Your task to perform on an android device: change your default location settings in chrome Image 0: 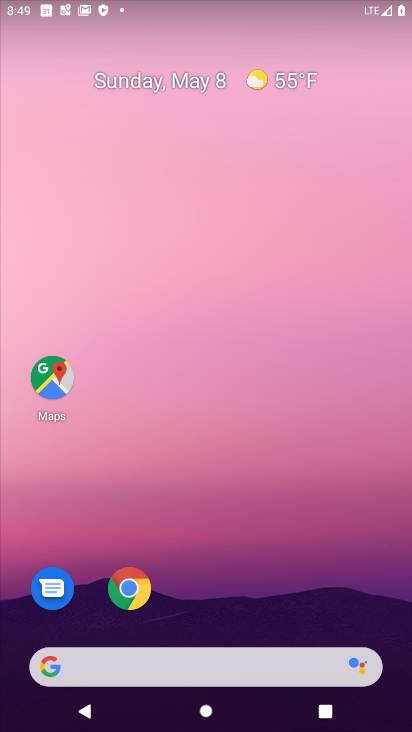
Step 0: drag from (335, 607) to (249, 24)
Your task to perform on an android device: change your default location settings in chrome Image 1: 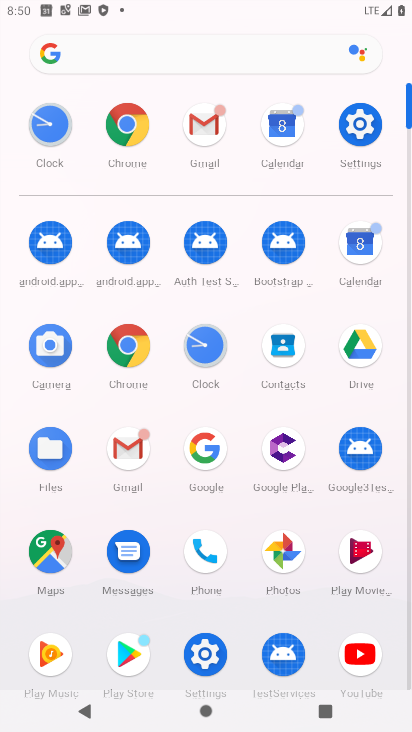
Step 1: click (134, 125)
Your task to perform on an android device: change your default location settings in chrome Image 2: 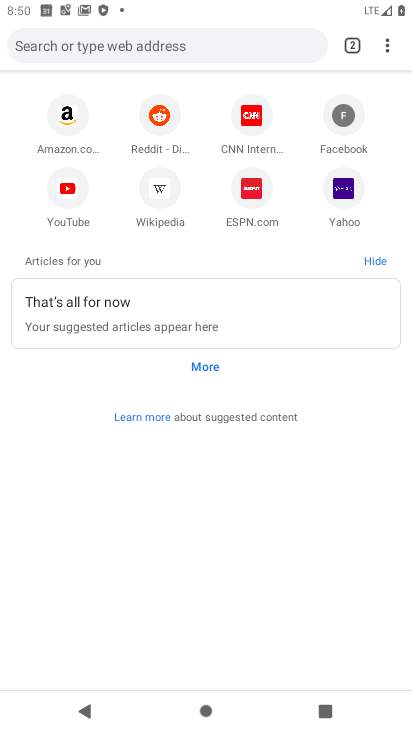
Step 2: click (388, 38)
Your task to perform on an android device: change your default location settings in chrome Image 3: 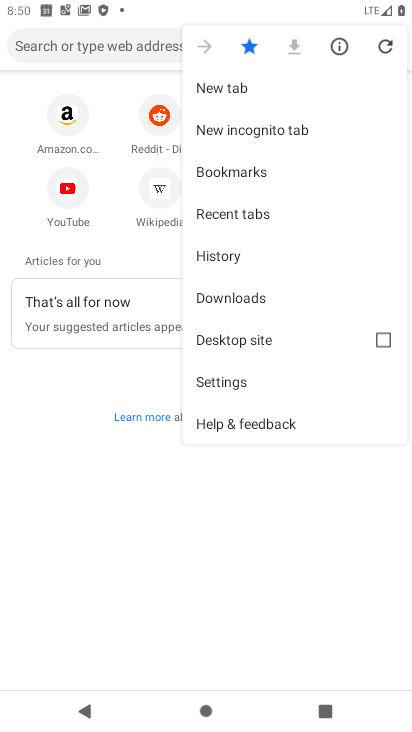
Step 3: click (246, 379)
Your task to perform on an android device: change your default location settings in chrome Image 4: 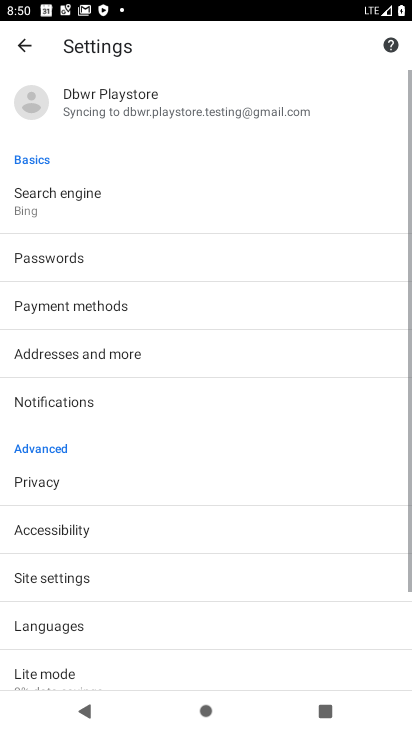
Step 4: click (92, 219)
Your task to perform on an android device: change your default location settings in chrome Image 5: 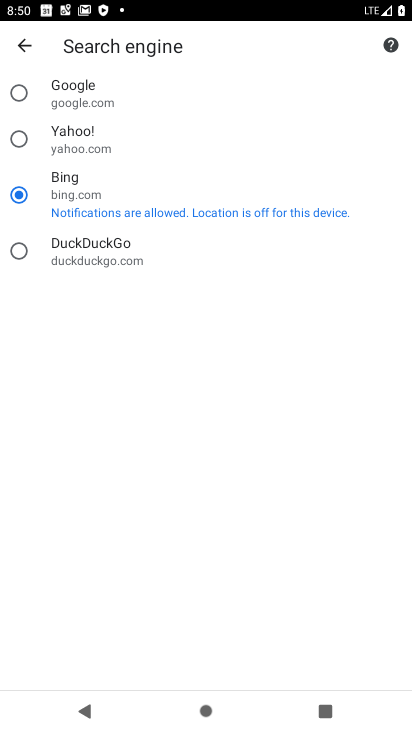
Step 5: click (87, 95)
Your task to perform on an android device: change your default location settings in chrome Image 6: 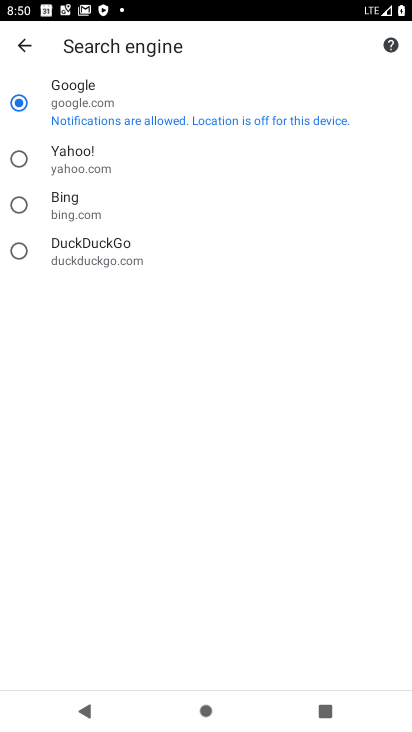
Step 6: task complete